Your task to perform on an android device: check battery use Image 0: 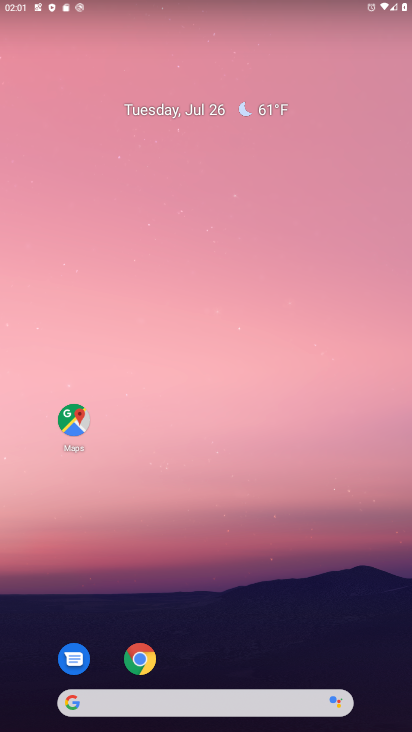
Step 0: drag from (277, 632) to (225, 48)
Your task to perform on an android device: check battery use Image 1: 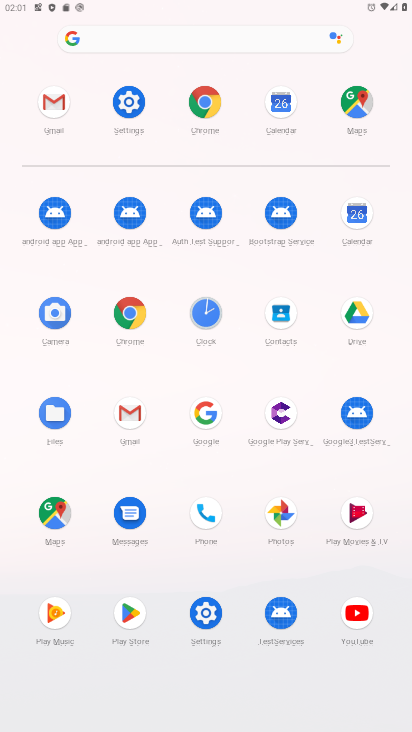
Step 1: click (132, 93)
Your task to perform on an android device: check battery use Image 2: 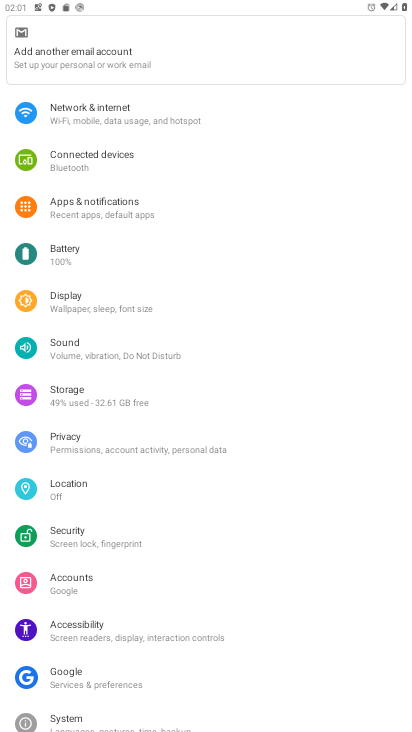
Step 2: click (64, 250)
Your task to perform on an android device: check battery use Image 3: 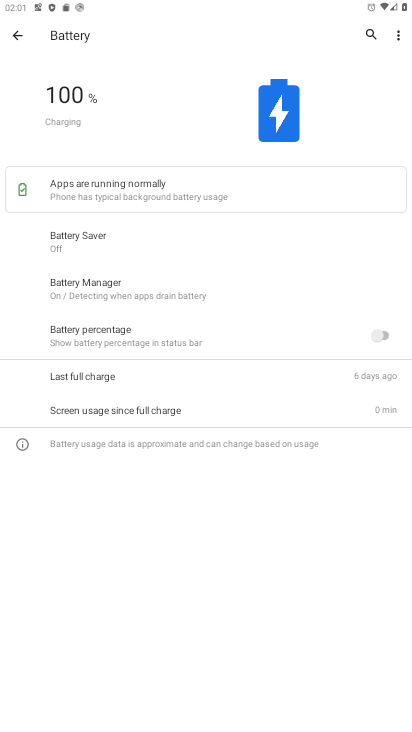
Step 3: click (401, 32)
Your task to perform on an android device: check battery use Image 4: 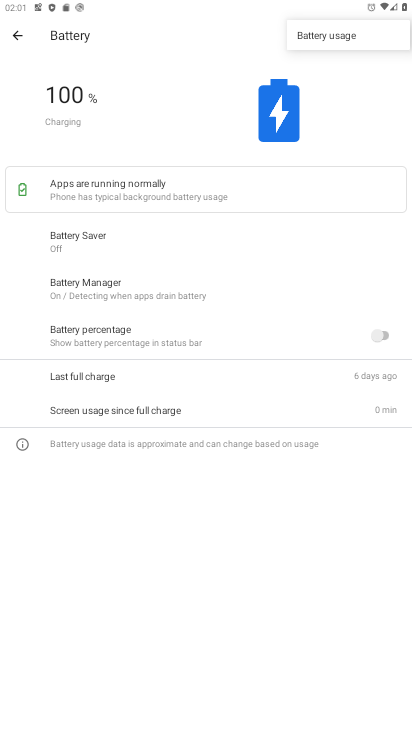
Step 4: click (352, 40)
Your task to perform on an android device: check battery use Image 5: 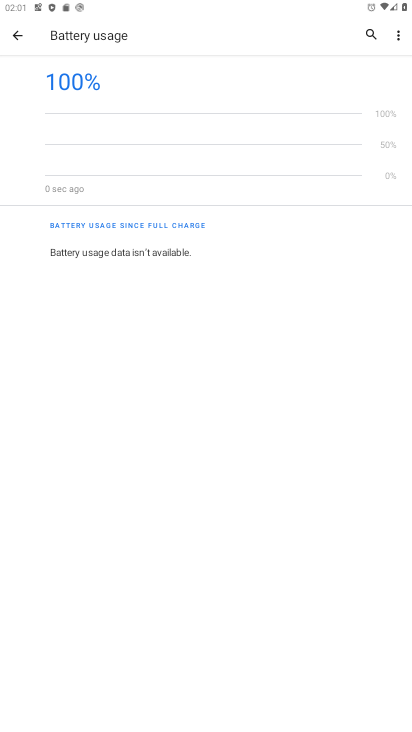
Step 5: task complete